Your task to perform on an android device: toggle improve location accuracy Image 0: 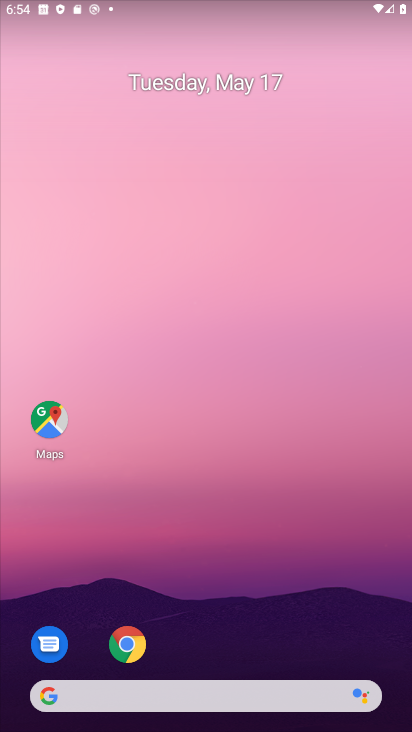
Step 0: drag from (314, 648) to (305, 246)
Your task to perform on an android device: toggle improve location accuracy Image 1: 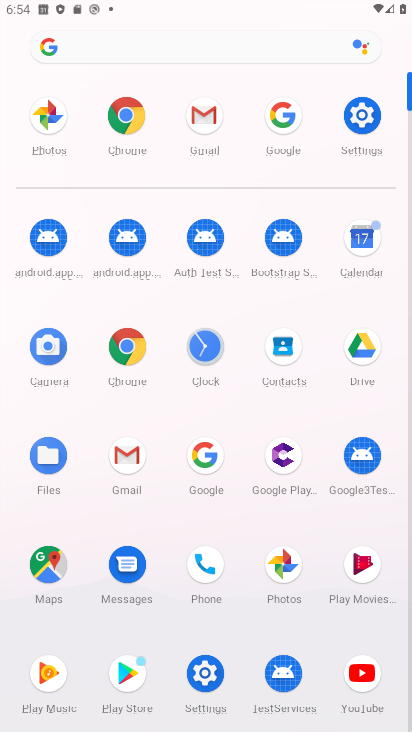
Step 1: click (355, 117)
Your task to perform on an android device: toggle improve location accuracy Image 2: 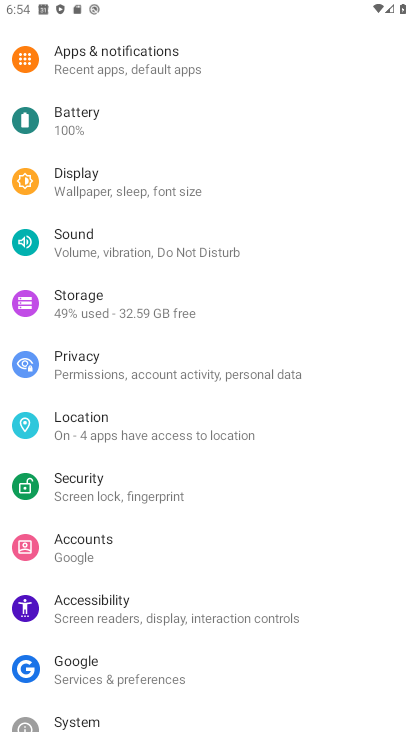
Step 2: click (168, 421)
Your task to perform on an android device: toggle improve location accuracy Image 3: 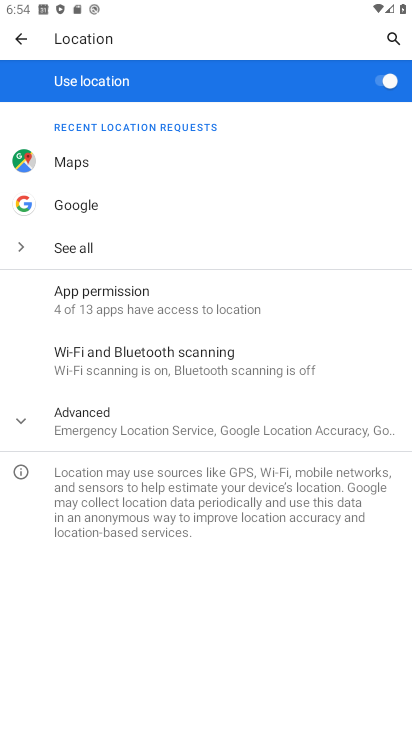
Step 3: click (168, 421)
Your task to perform on an android device: toggle improve location accuracy Image 4: 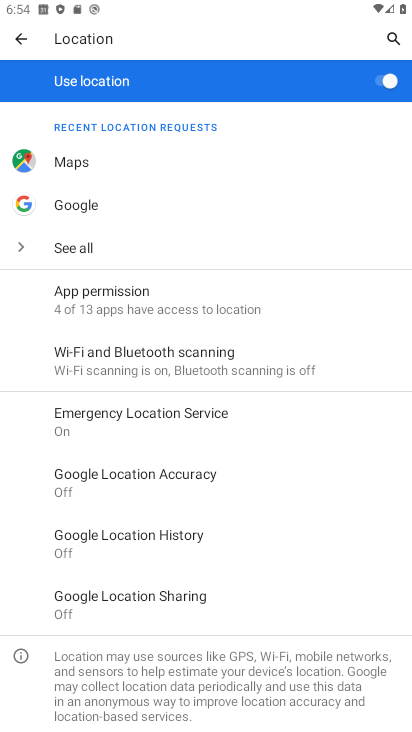
Step 4: click (148, 488)
Your task to perform on an android device: toggle improve location accuracy Image 5: 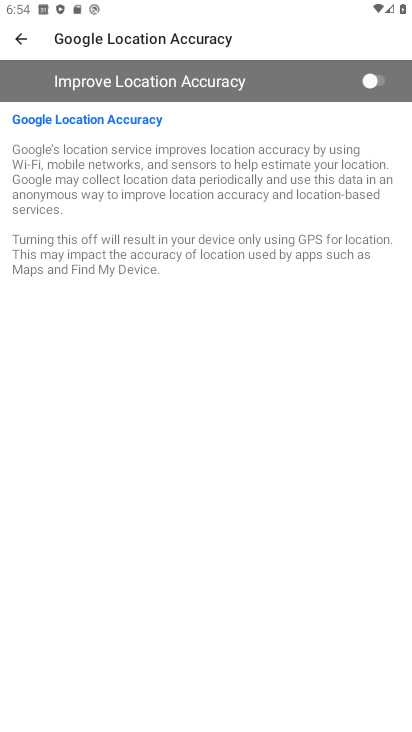
Step 5: click (371, 88)
Your task to perform on an android device: toggle improve location accuracy Image 6: 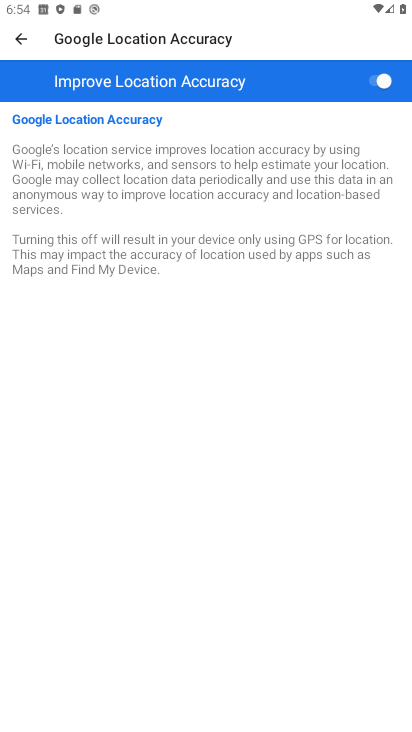
Step 6: task complete